Your task to perform on an android device: open chrome privacy settings Image 0: 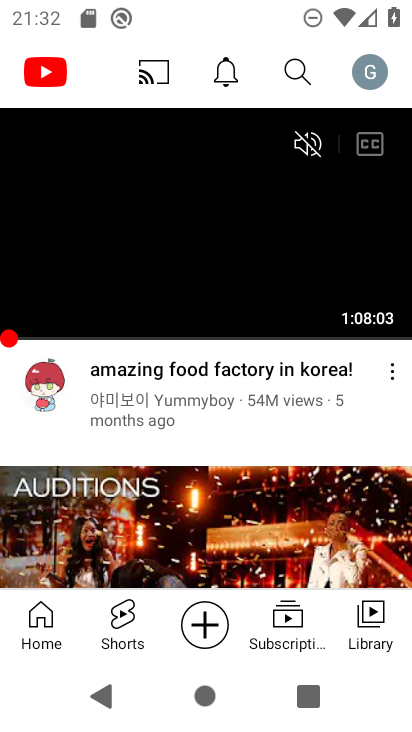
Step 0: press home button
Your task to perform on an android device: open chrome privacy settings Image 1: 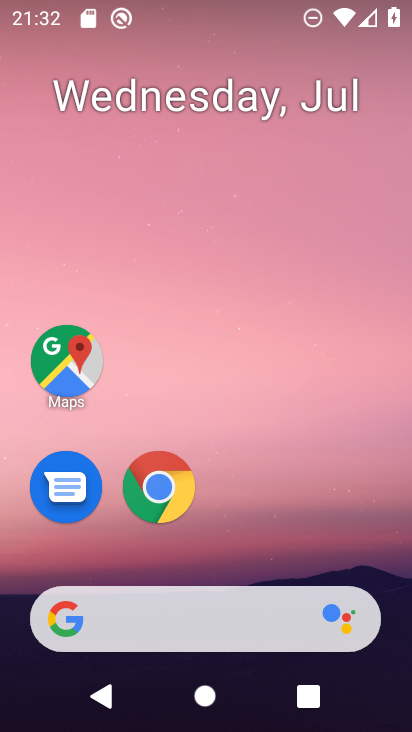
Step 1: drag from (286, 497) to (316, 75)
Your task to perform on an android device: open chrome privacy settings Image 2: 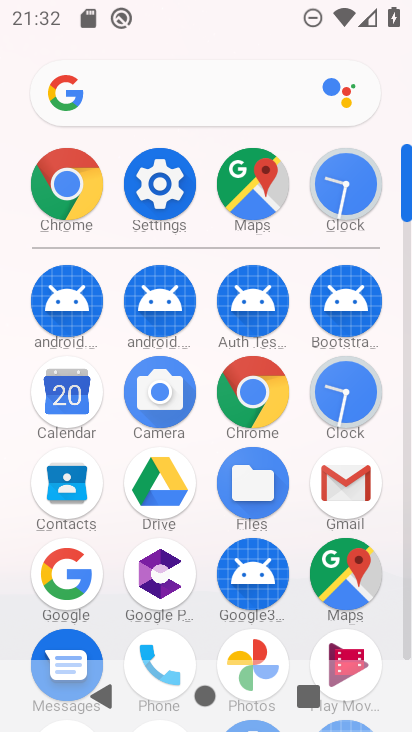
Step 2: click (271, 388)
Your task to perform on an android device: open chrome privacy settings Image 3: 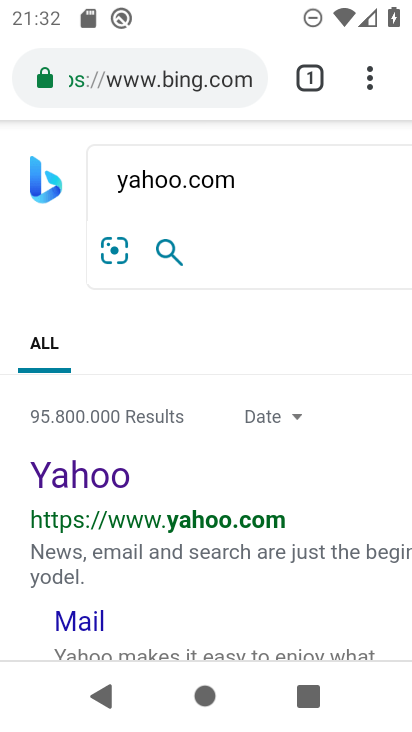
Step 3: click (368, 88)
Your task to perform on an android device: open chrome privacy settings Image 4: 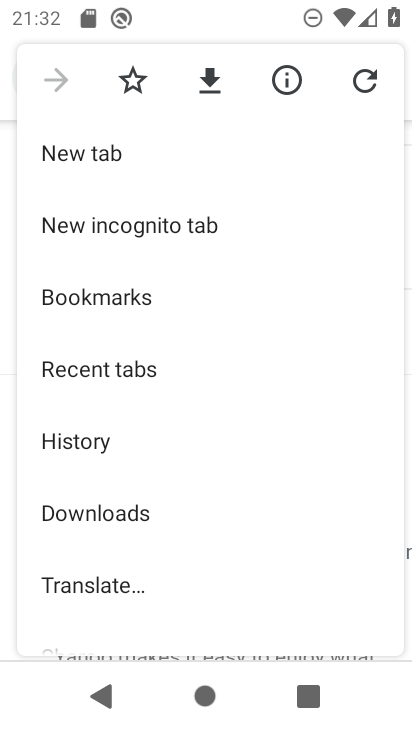
Step 4: drag from (306, 406) to (306, 314)
Your task to perform on an android device: open chrome privacy settings Image 5: 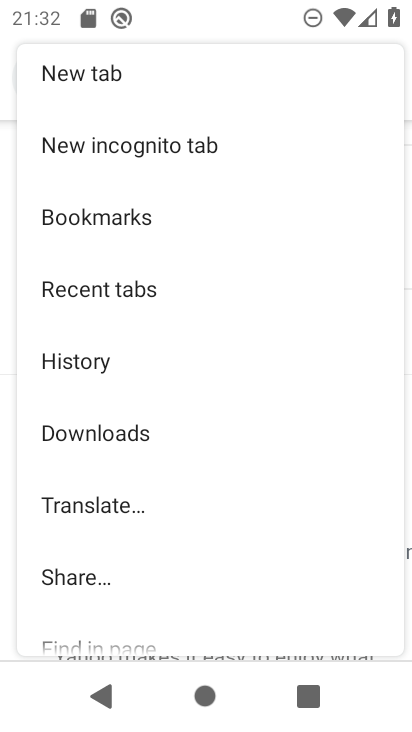
Step 5: drag from (309, 476) to (322, 374)
Your task to perform on an android device: open chrome privacy settings Image 6: 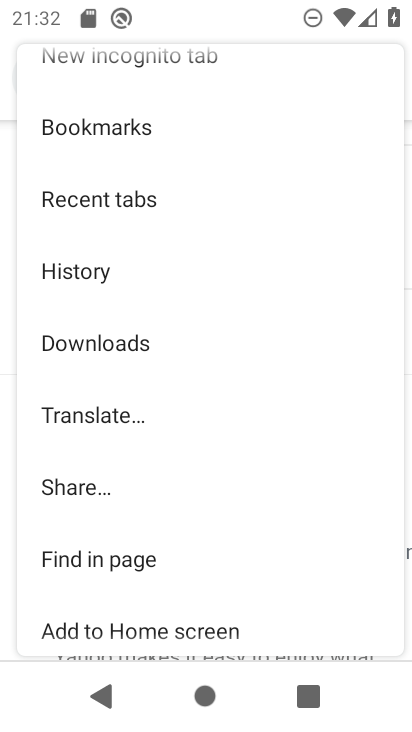
Step 6: drag from (331, 499) to (335, 387)
Your task to perform on an android device: open chrome privacy settings Image 7: 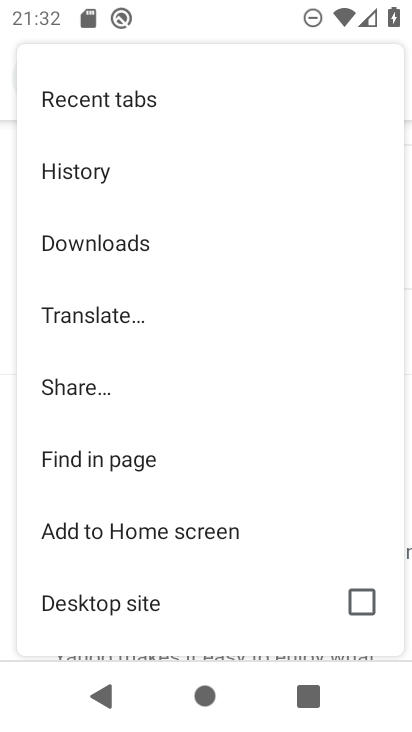
Step 7: drag from (299, 512) to (299, 364)
Your task to perform on an android device: open chrome privacy settings Image 8: 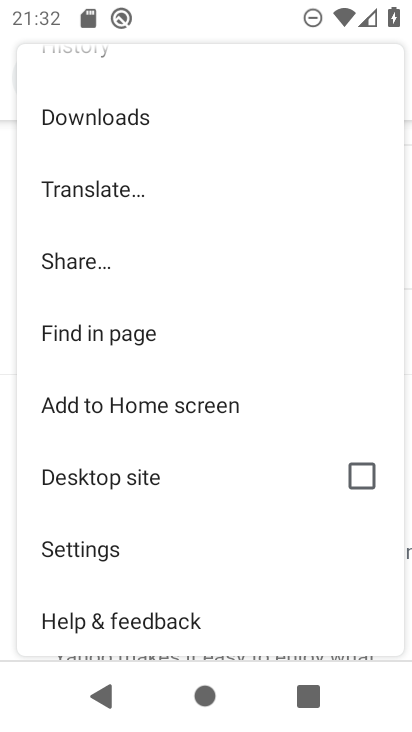
Step 8: click (133, 552)
Your task to perform on an android device: open chrome privacy settings Image 9: 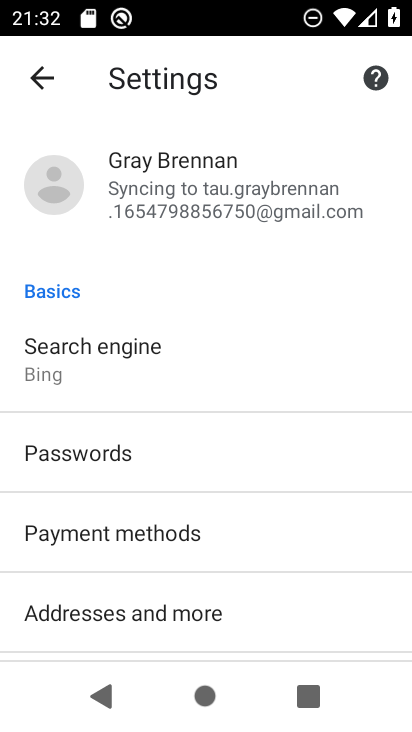
Step 9: drag from (324, 549) to (329, 432)
Your task to perform on an android device: open chrome privacy settings Image 10: 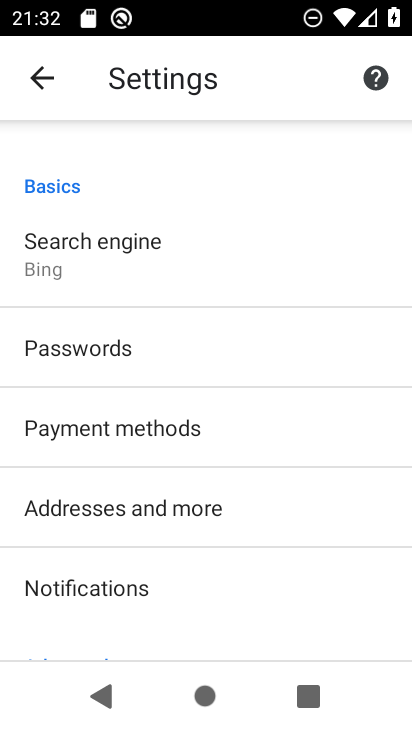
Step 10: drag from (314, 532) to (315, 394)
Your task to perform on an android device: open chrome privacy settings Image 11: 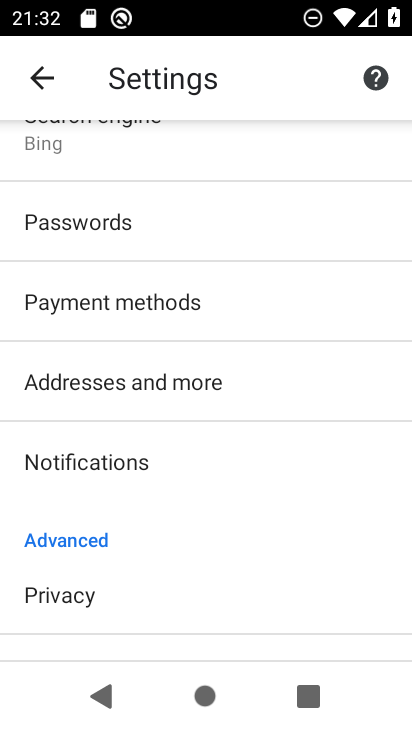
Step 11: drag from (314, 525) to (315, 408)
Your task to perform on an android device: open chrome privacy settings Image 12: 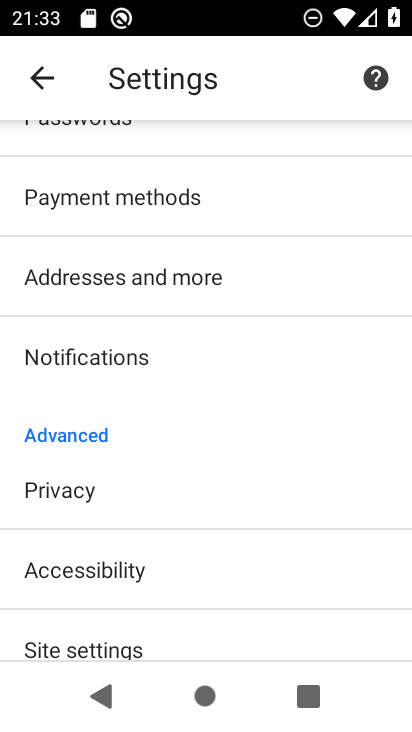
Step 12: click (260, 488)
Your task to perform on an android device: open chrome privacy settings Image 13: 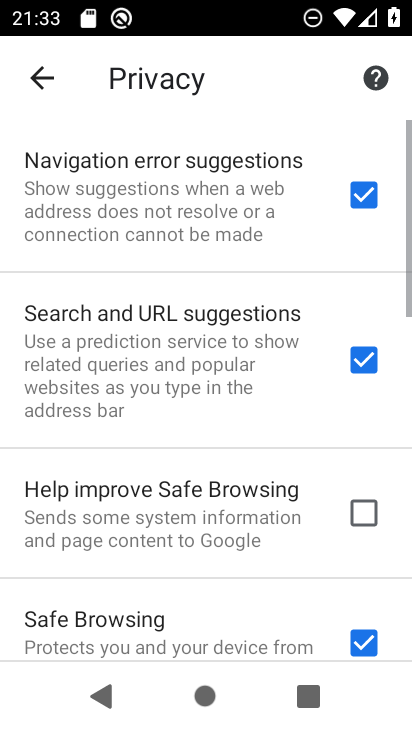
Step 13: task complete